Your task to perform on an android device: change your default location settings in chrome Image 0: 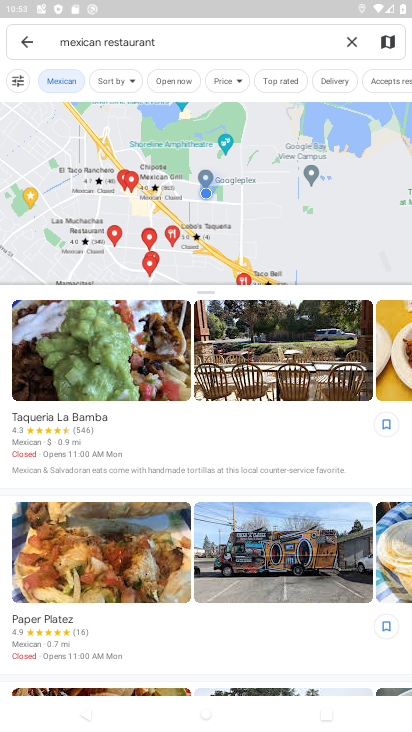
Step 0: press home button
Your task to perform on an android device: change your default location settings in chrome Image 1: 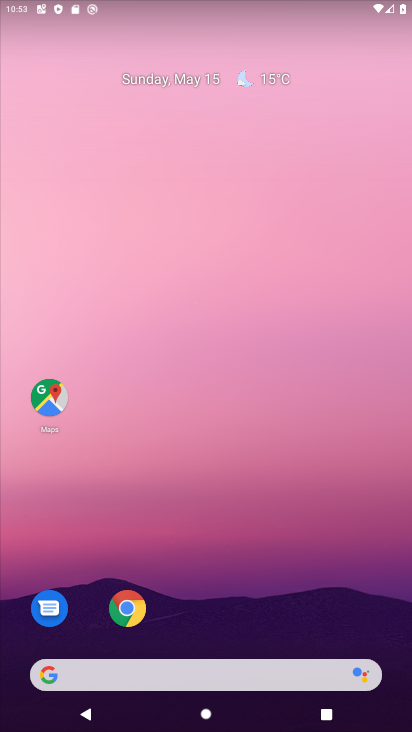
Step 1: click (129, 616)
Your task to perform on an android device: change your default location settings in chrome Image 2: 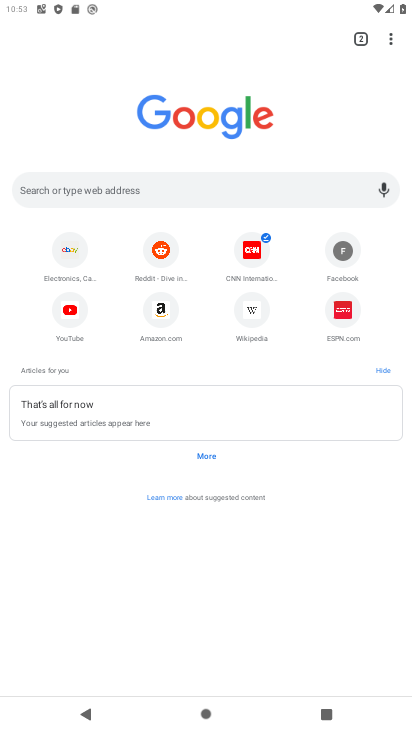
Step 2: click (392, 41)
Your task to perform on an android device: change your default location settings in chrome Image 3: 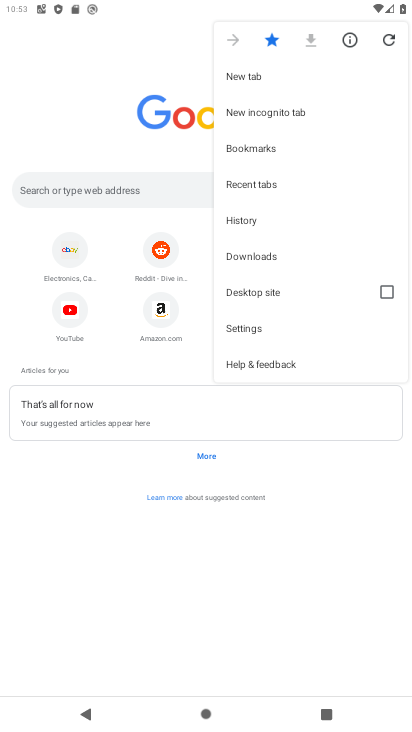
Step 3: click (242, 329)
Your task to perform on an android device: change your default location settings in chrome Image 4: 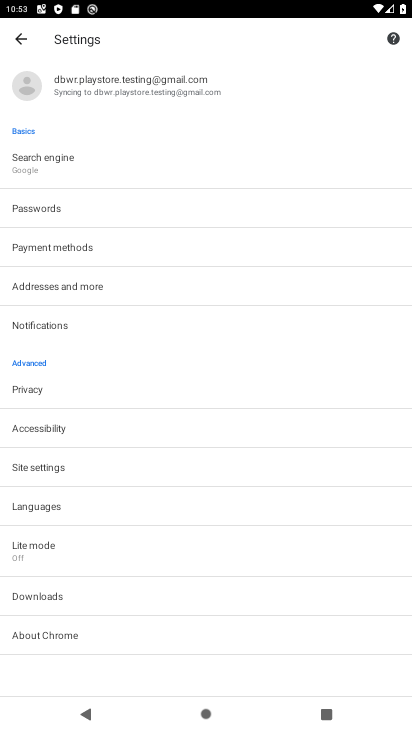
Step 4: click (41, 465)
Your task to perform on an android device: change your default location settings in chrome Image 5: 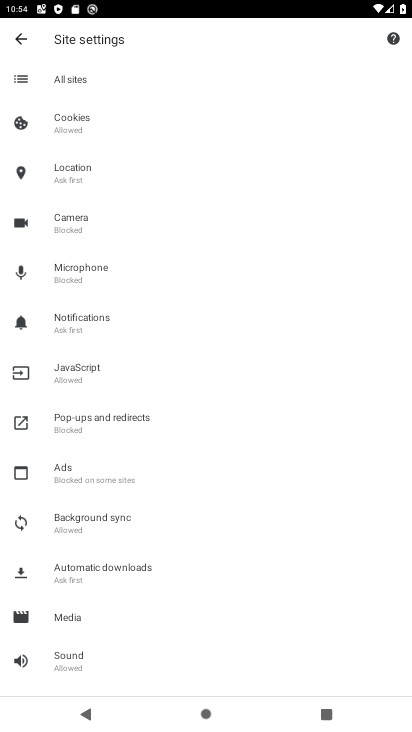
Step 5: click (54, 82)
Your task to perform on an android device: change your default location settings in chrome Image 6: 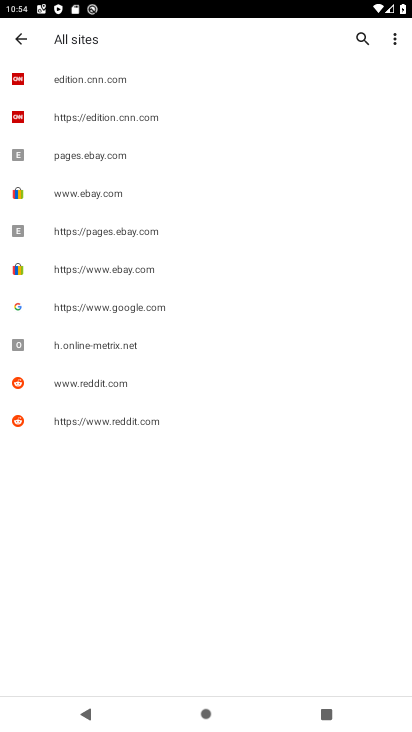
Step 6: click (74, 309)
Your task to perform on an android device: change your default location settings in chrome Image 7: 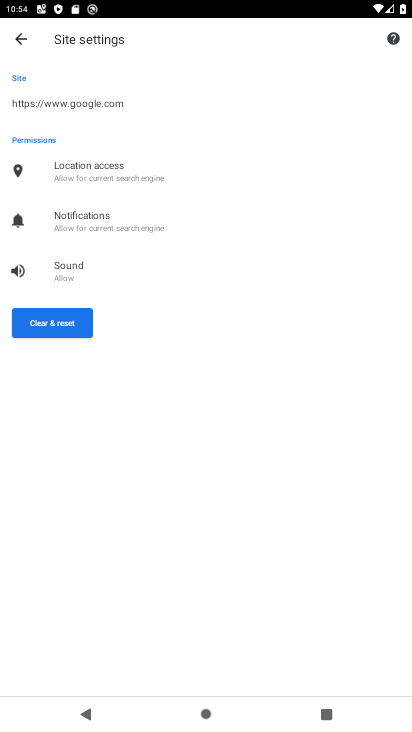
Step 7: click (59, 185)
Your task to perform on an android device: change your default location settings in chrome Image 8: 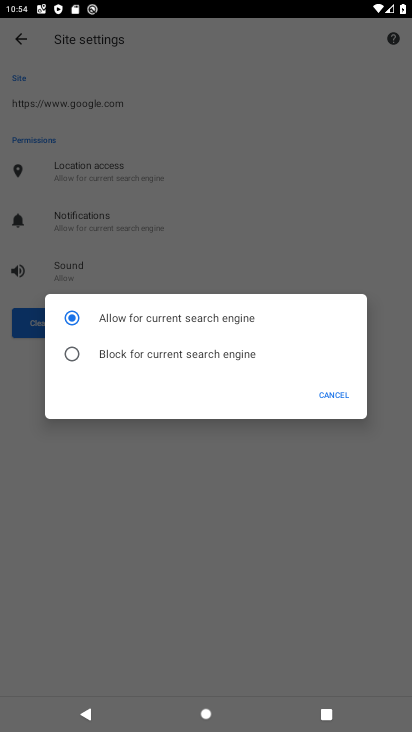
Step 8: click (78, 354)
Your task to perform on an android device: change your default location settings in chrome Image 9: 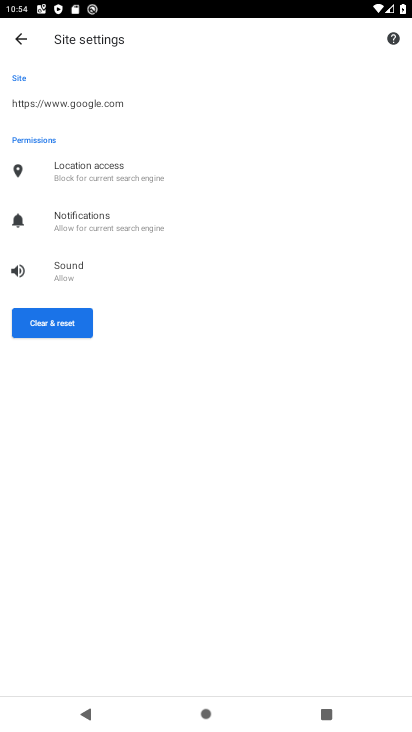
Step 9: task complete